Your task to perform on an android device: remove spam from my inbox in the gmail app Image 0: 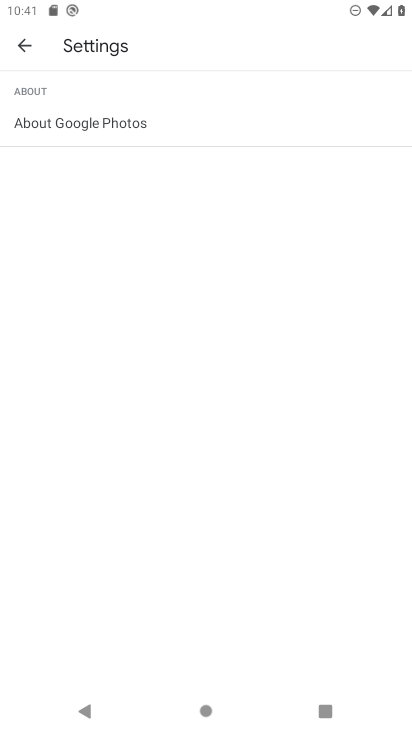
Step 0: press home button
Your task to perform on an android device: remove spam from my inbox in the gmail app Image 1: 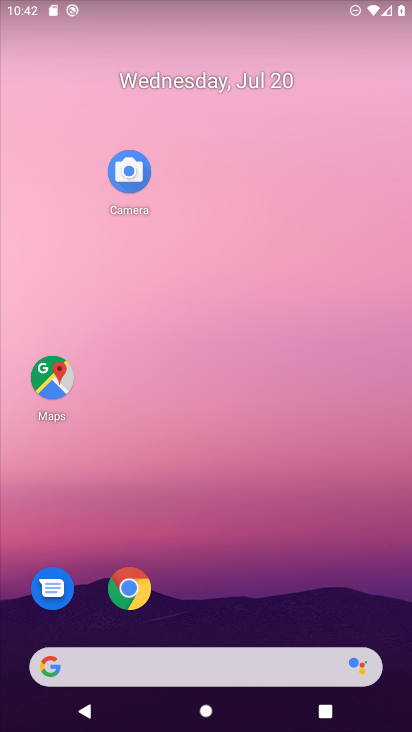
Step 1: drag from (248, 604) to (219, 57)
Your task to perform on an android device: remove spam from my inbox in the gmail app Image 2: 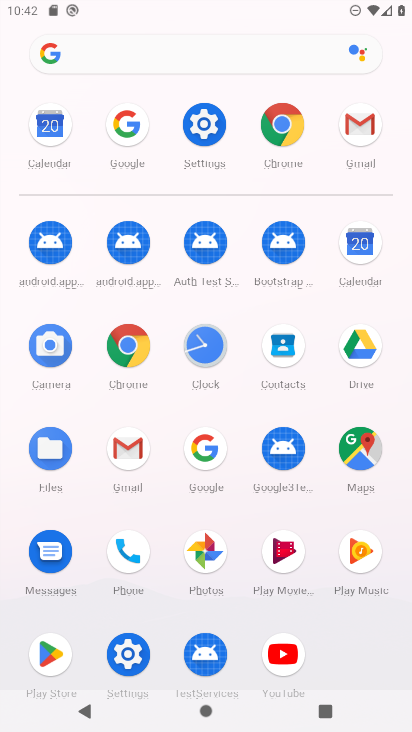
Step 2: click (365, 123)
Your task to perform on an android device: remove spam from my inbox in the gmail app Image 3: 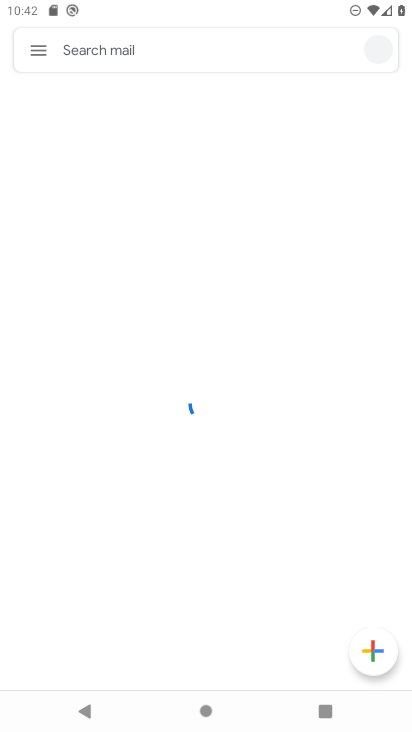
Step 3: click (33, 51)
Your task to perform on an android device: remove spam from my inbox in the gmail app Image 4: 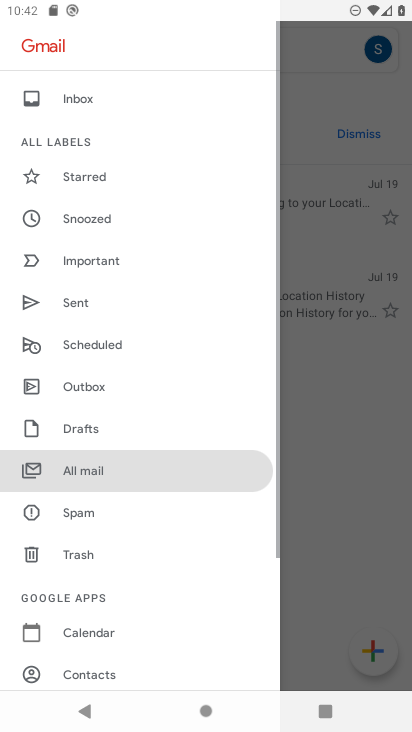
Step 4: click (94, 469)
Your task to perform on an android device: remove spam from my inbox in the gmail app Image 5: 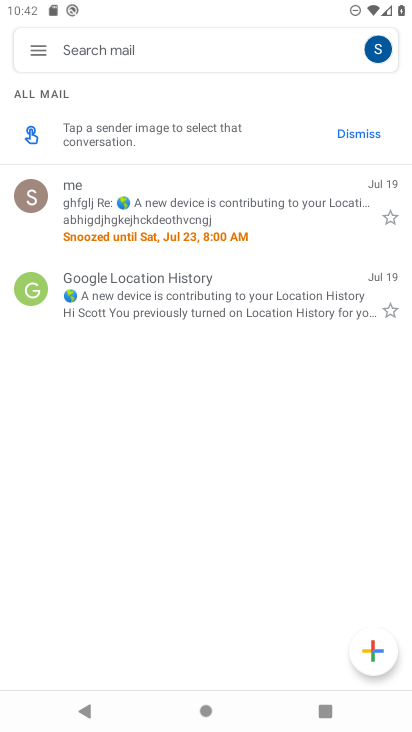
Step 5: click (157, 284)
Your task to perform on an android device: remove spam from my inbox in the gmail app Image 6: 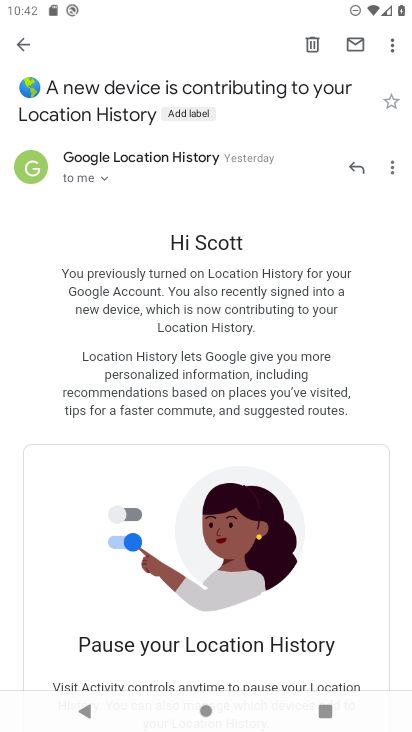
Step 6: click (394, 41)
Your task to perform on an android device: remove spam from my inbox in the gmail app Image 7: 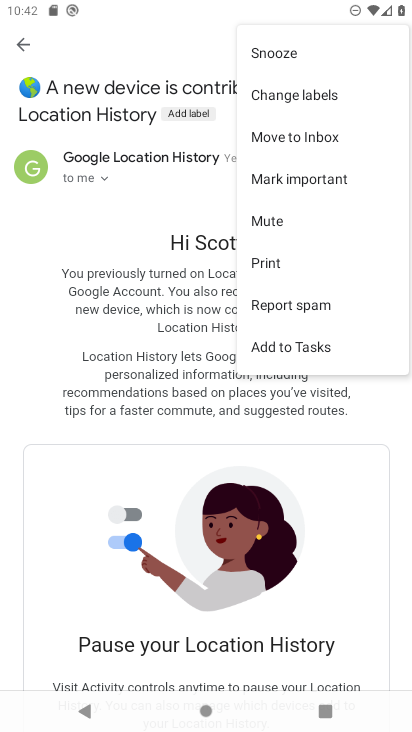
Step 7: drag from (347, 312) to (330, 32)
Your task to perform on an android device: remove spam from my inbox in the gmail app Image 8: 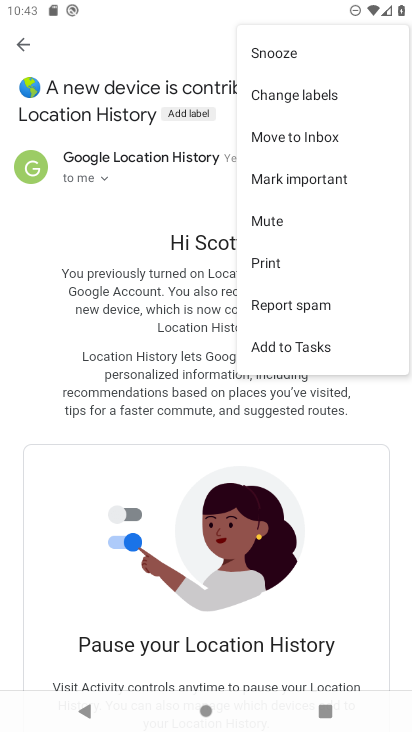
Step 8: click (308, 308)
Your task to perform on an android device: remove spam from my inbox in the gmail app Image 9: 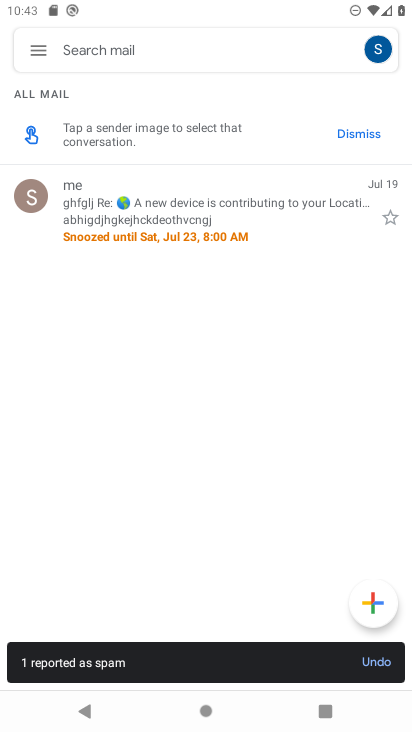
Step 9: task complete